Your task to perform on an android device: make emails show in primary in the gmail app Image 0: 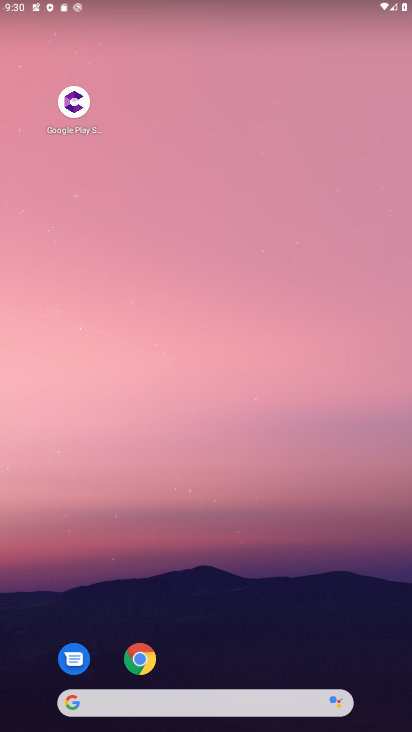
Step 0: press home button
Your task to perform on an android device: make emails show in primary in the gmail app Image 1: 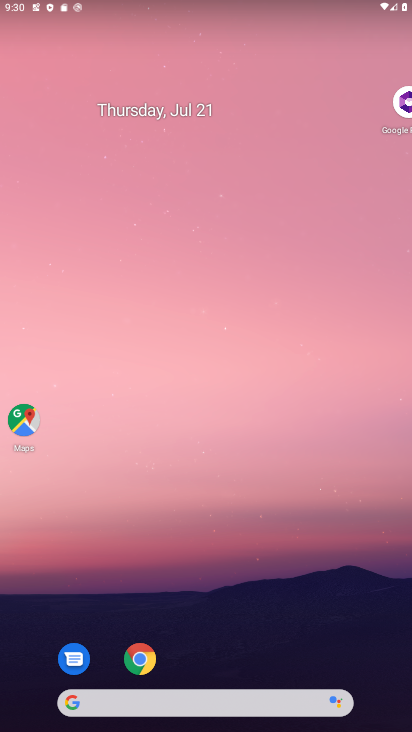
Step 1: drag from (304, 652) to (240, 0)
Your task to perform on an android device: make emails show in primary in the gmail app Image 2: 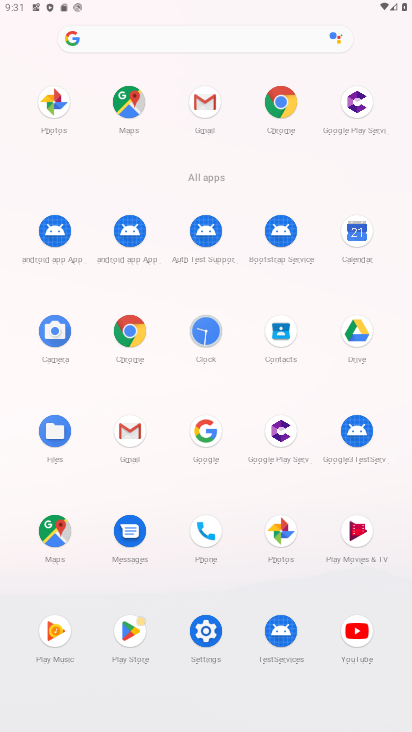
Step 2: click (119, 430)
Your task to perform on an android device: make emails show in primary in the gmail app Image 3: 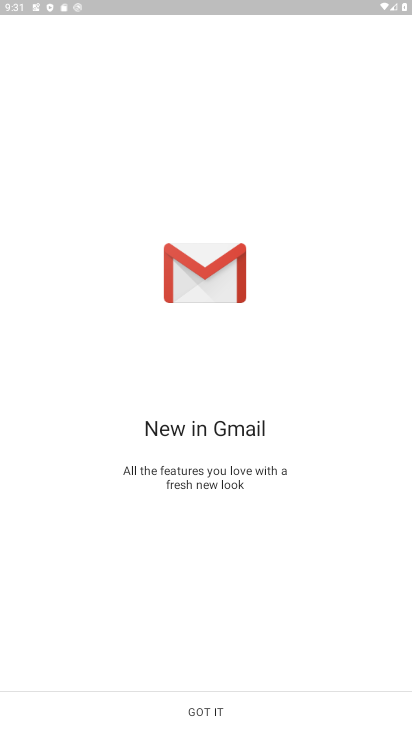
Step 3: click (210, 704)
Your task to perform on an android device: make emails show in primary in the gmail app Image 4: 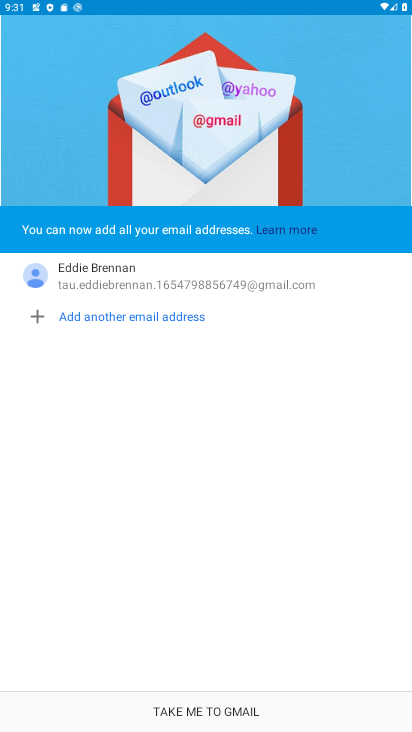
Step 4: click (214, 708)
Your task to perform on an android device: make emails show in primary in the gmail app Image 5: 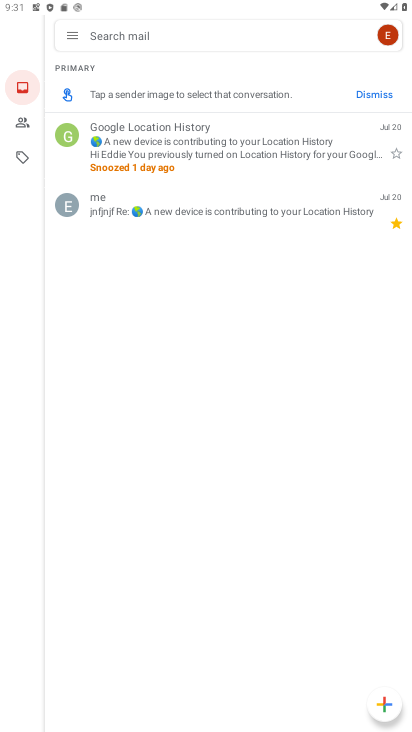
Step 5: task complete